Your task to perform on an android device: What's on my calendar tomorrow? Image 0: 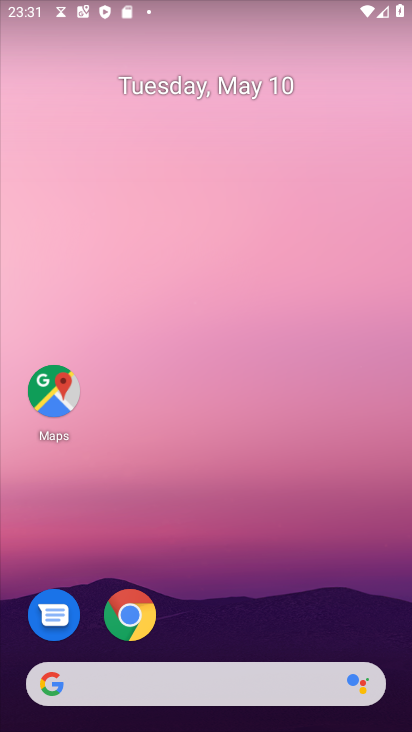
Step 0: drag from (278, 606) to (242, 143)
Your task to perform on an android device: What's on my calendar tomorrow? Image 1: 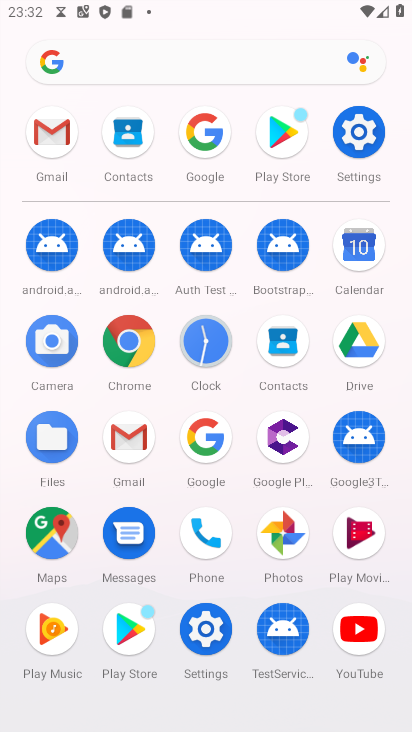
Step 1: click (356, 249)
Your task to perform on an android device: What's on my calendar tomorrow? Image 2: 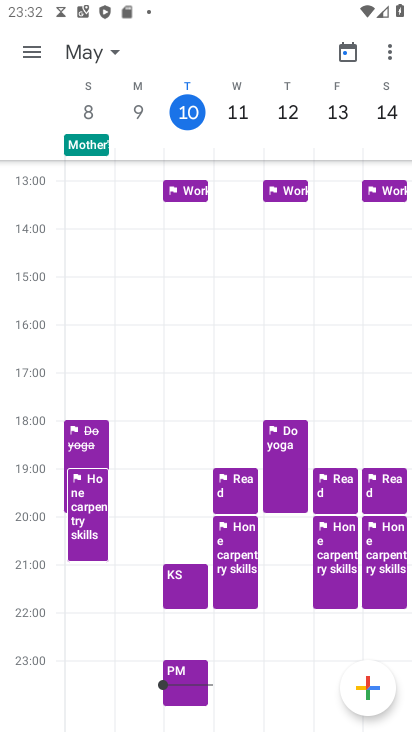
Step 2: click (350, 56)
Your task to perform on an android device: What's on my calendar tomorrow? Image 3: 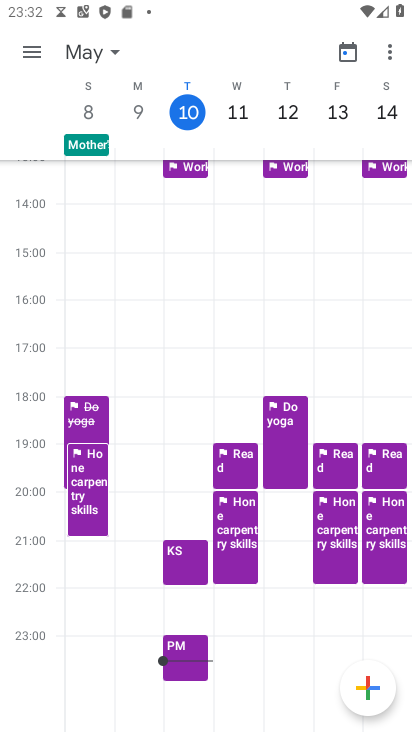
Step 3: click (30, 55)
Your task to perform on an android device: What's on my calendar tomorrow? Image 4: 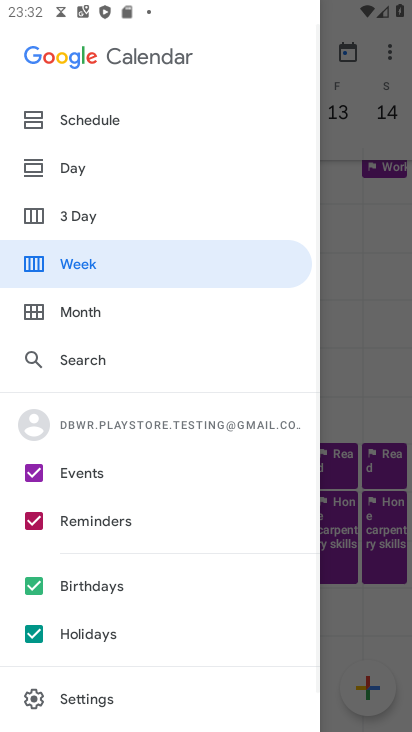
Step 4: click (67, 117)
Your task to perform on an android device: What's on my calendar tomorrow? Image 5: 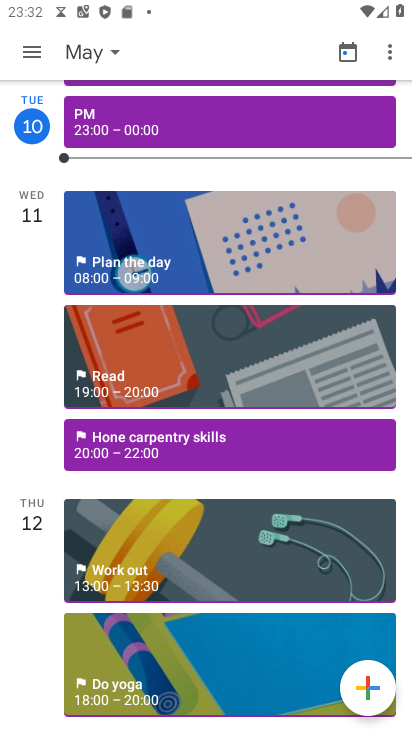
Step 5: click (114, 54)
Your task to perform on an android device: What's on my calendar tomorrow? Image 6: 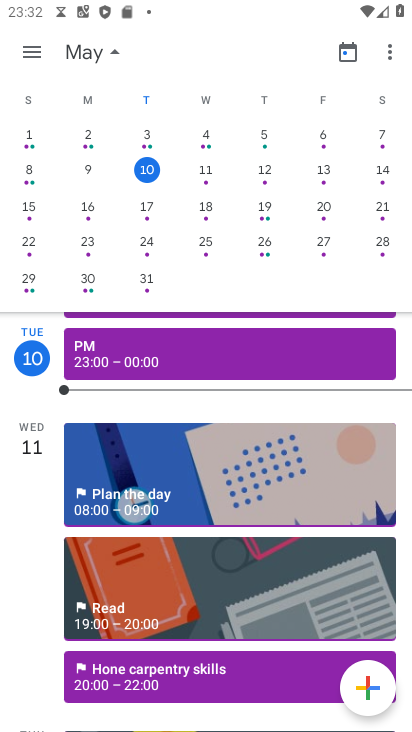
Step 6: click (204, 169)
Your task to perform on an android device: What's on my calendar tomorrow? Image 7: 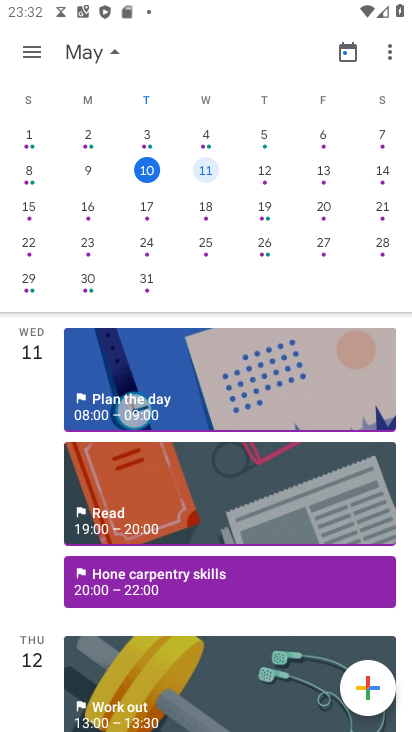
Step 7: click (204, 169)
Your task to perform on an android device: What's on my calendar tomorrow? Image 8: 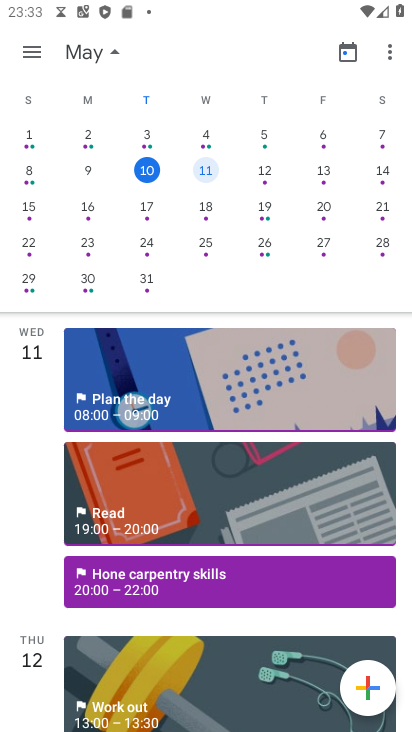
Step 8: task complete